Your task to perform on an android device: turn vacation reply on in the gmail app Image 0: 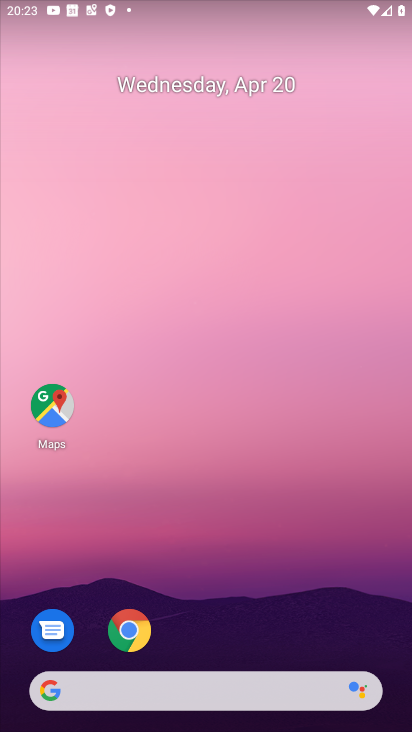
Step 0: drag from (274, 609) to (249, 131)
Your task to perform on an android device: turn vacation reply on in the gmail app Image 1: 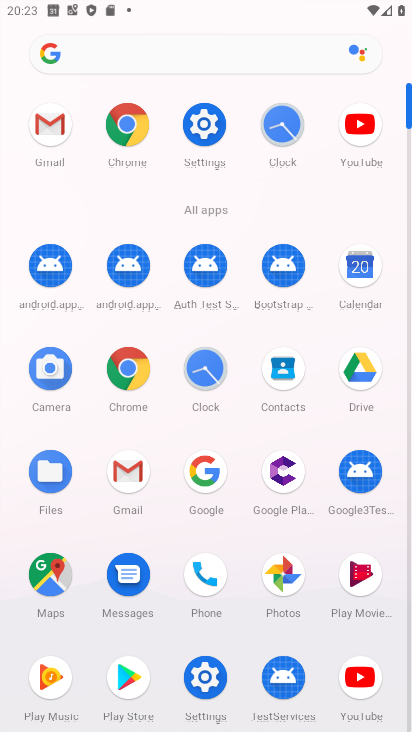
Step 1: click (49, 134)
Your task to perform on an android device: turn vacation reply on in the gmail app Image 2: 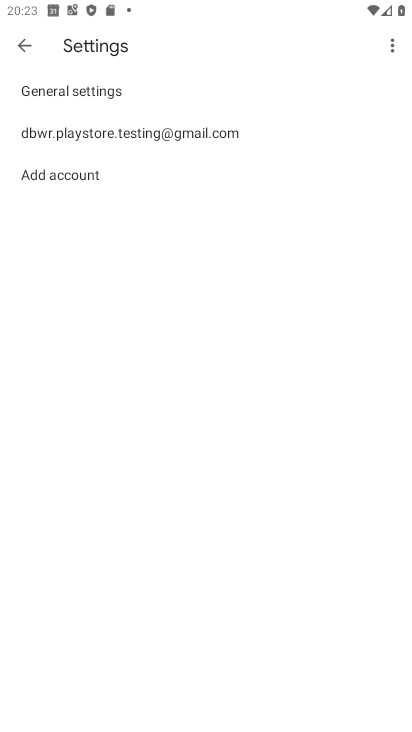
Step 2: click (55, 130)
Your task to perform on an android device: turn vacation reply on in the gmail app Image 3: 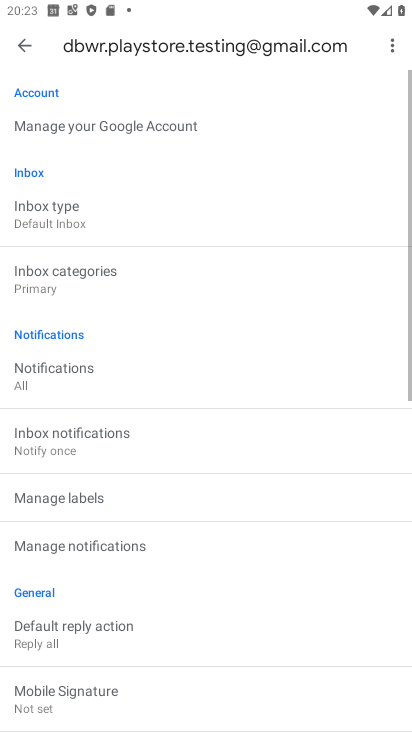
Step 3: drag from (291, 524) to (318, 147)
Your task to perform on an android device: turn vacation reply on in the gmail app Image 4: 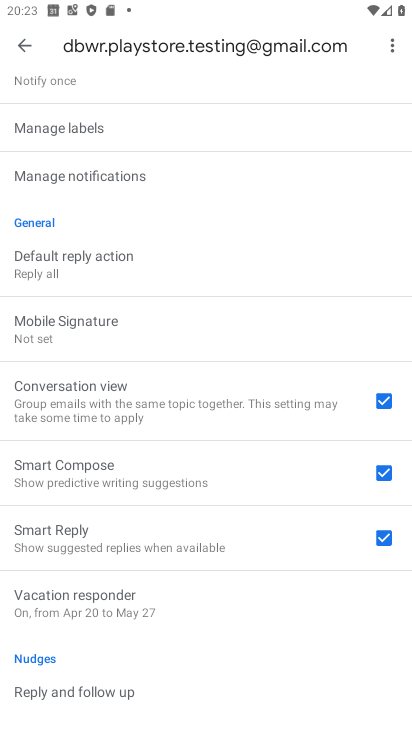
Step 4: click (136, 604)
Your task to perform on an android device: turn vacation reply on in the gmail app Image 5: 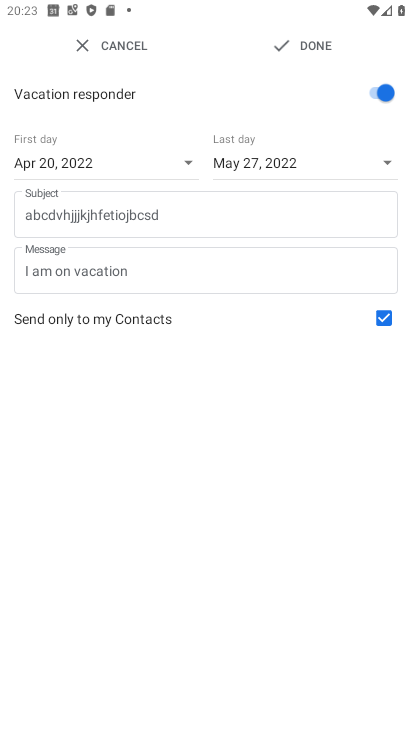
Step 5: click (304, 43)
Your task to perform on an android device: turn vacation reply on in the gmail app Image 6: 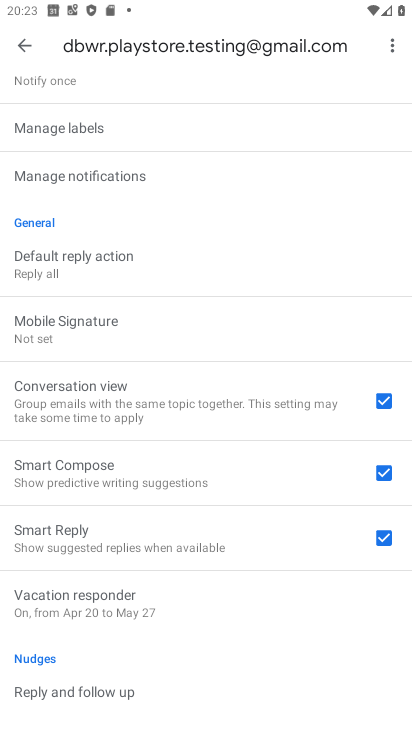
Step 6: task complete